Your task to perform on an android device: open wifi settings Image 0: 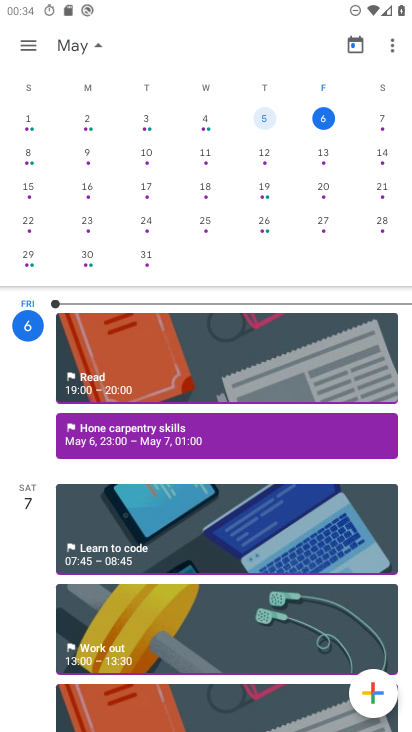
Step 0: press home button
Your task to perform on an android device: open wifi settings Image 1: 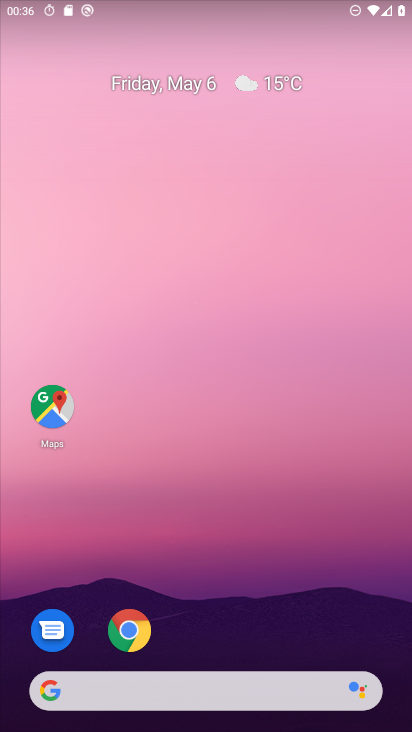
Step 1: drag from (236, 525) to (225, 112)
Your task to perform on an android device: open wifi settings Image 2: 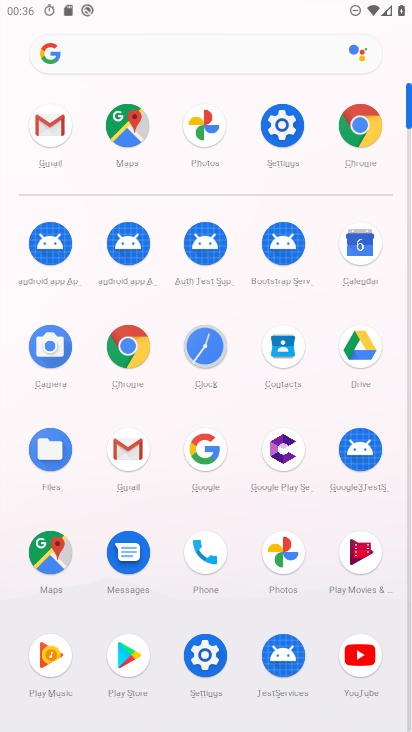
Step 2: click (278, 128)
Your task to perform on an android device: open wifi settings Image 3: 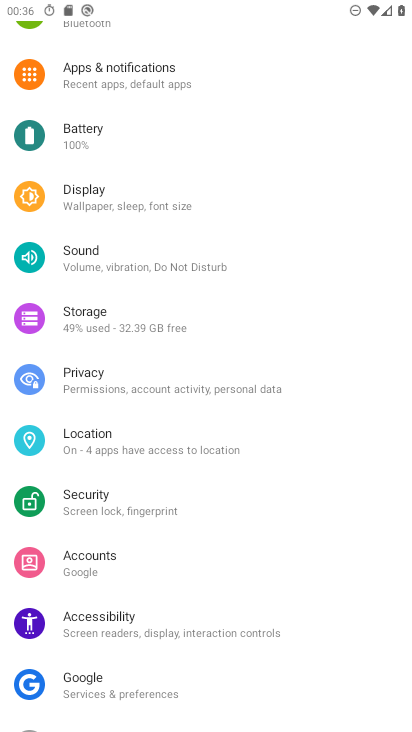
Step 3: drag from (155, 117) to (199, 588)
Your task to perform on an android device: open wifi settings Image 4: 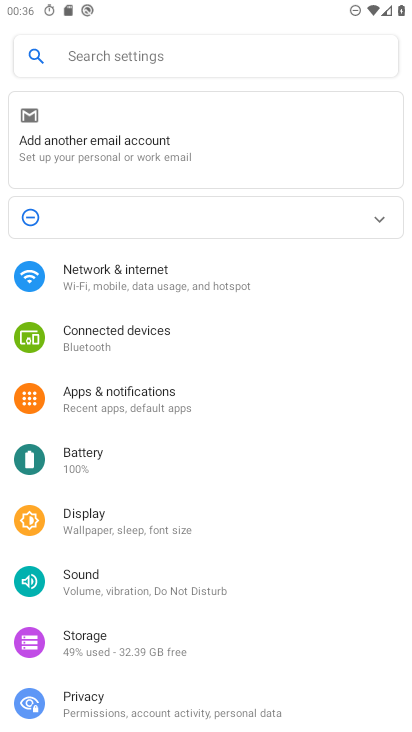
Step 4: click (136, 292)
Your task to perform on an android device: open wifi settings Image 5: 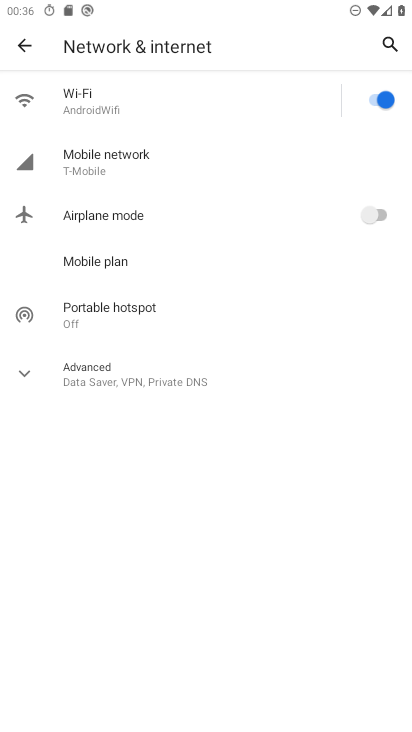
Step 5: click (293, 83)
Your task to perform on an android device: open wifi settings Image 6: 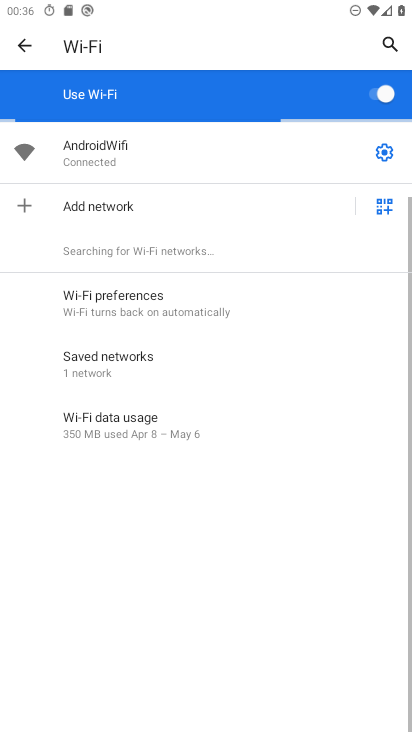
Step 6: click (392, 155)
Your task to perform on an android device: open wifi settings Image 7: 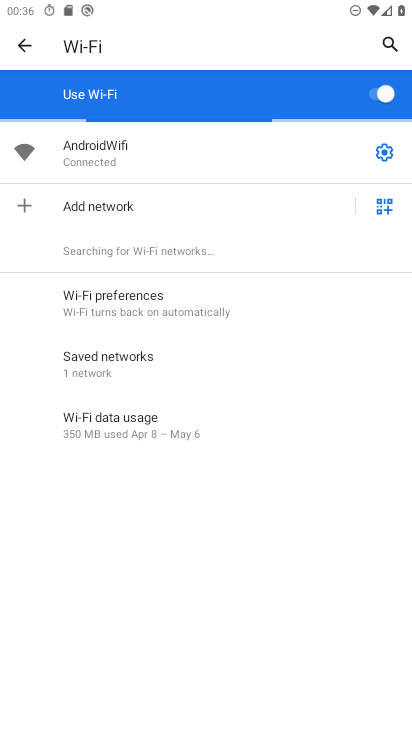
Step 7: click (390, 150)
Your task to perform on an android device: open wifi settings Image 8: 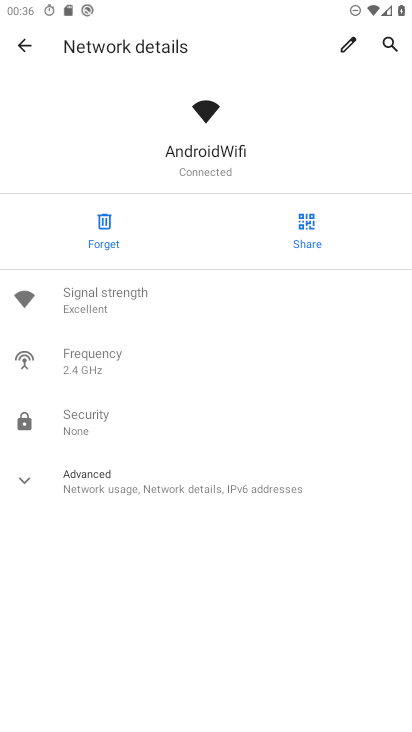
Step 8: task complete